Your task to perform on an android device: What is the news today? Image 0: 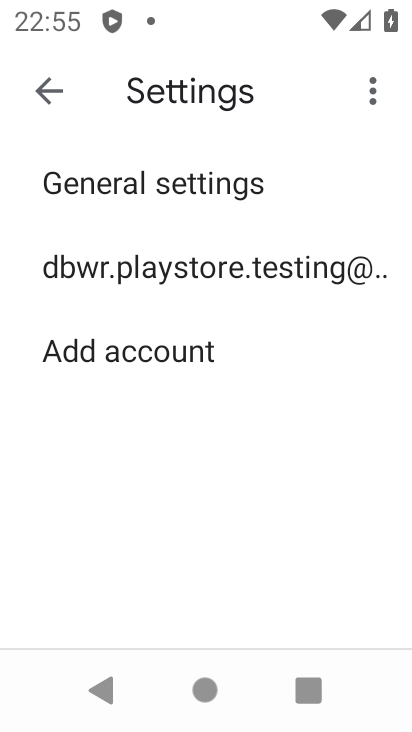
Step 0: click (158, 274)
Your task to perform on an android device: What is the news today? Image 1: 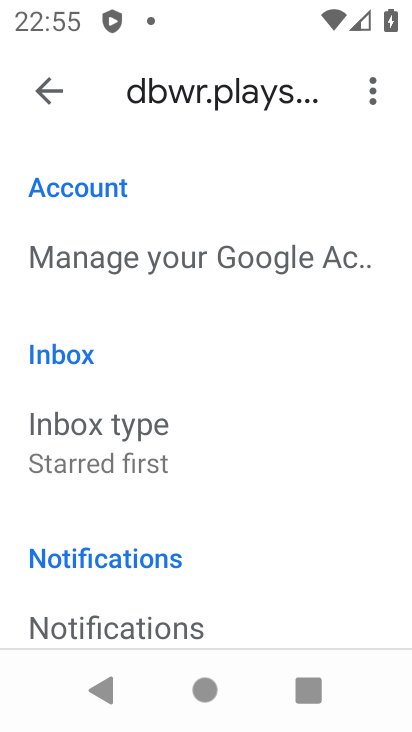
Step 1: drag from (193, 567) to (270, 82)
Your task to perform on an android device: What is the news today? Image 2: 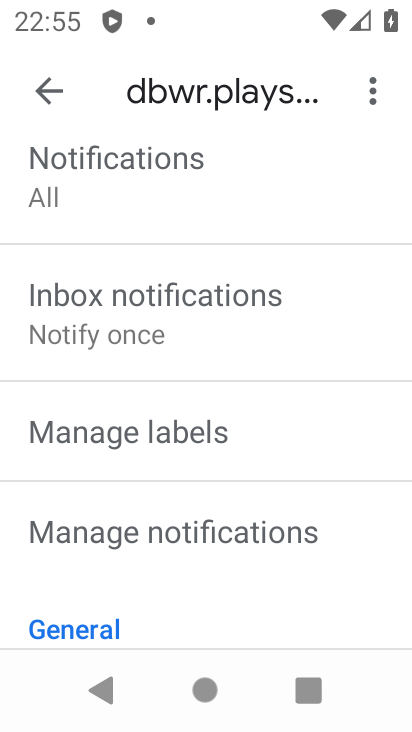
Step 2: press home button
Your task to perform on an android device: What is the news today? Image 3: 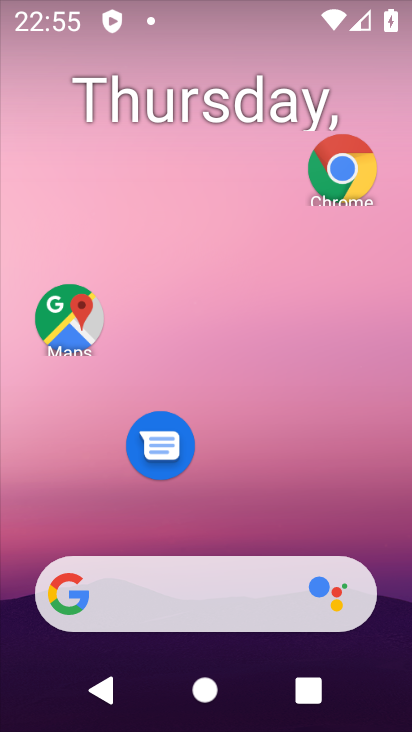
Step 3: drag from (211, 499) to (273, 127)
Your task to perform on an android device: What is the news today? Image 4: 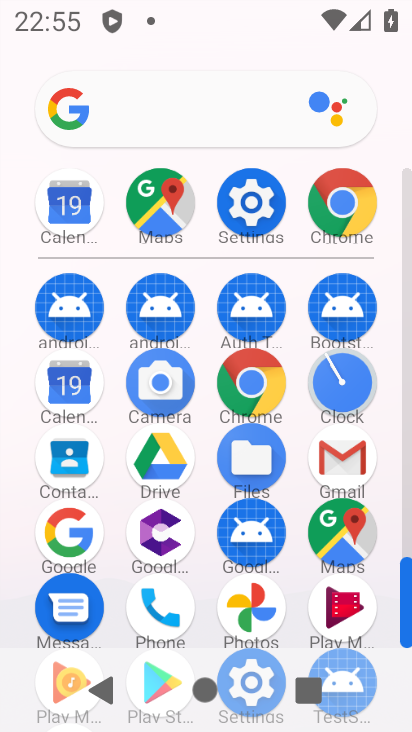
Step 4: click (191, 115)
Your task to perform on an android device: What is the news today? Image 5: 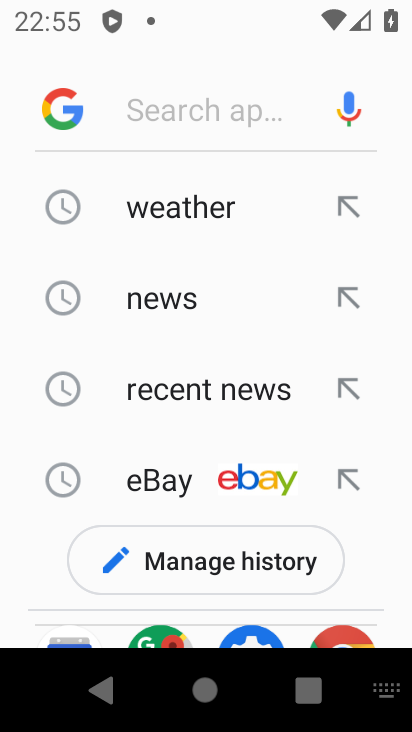
Step 5: click (148, 286)
Your task to perform on an android device: What is the news today? Image 6: 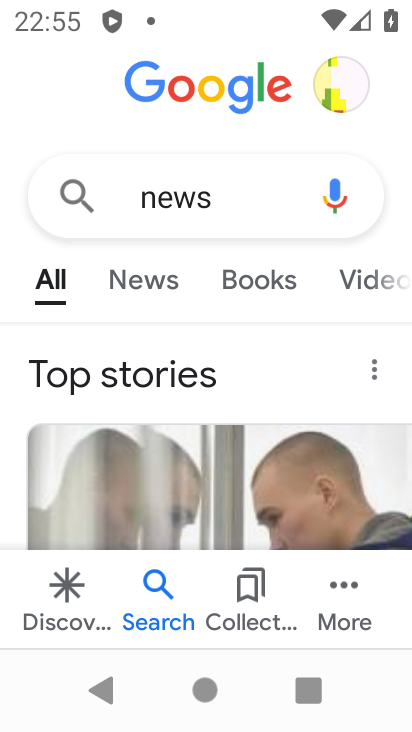
Step 6: task complete